Your task to perform on an android device: toggle priority inbox in the gmail app Image 0: 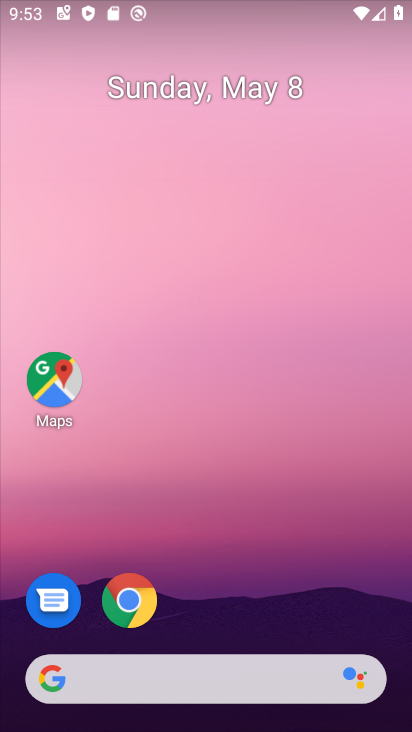
Step 0: drag from (214, 680) to (201, 138)
Your task to perform on an android device: toggle priority inbox in the gmail app Image 1: 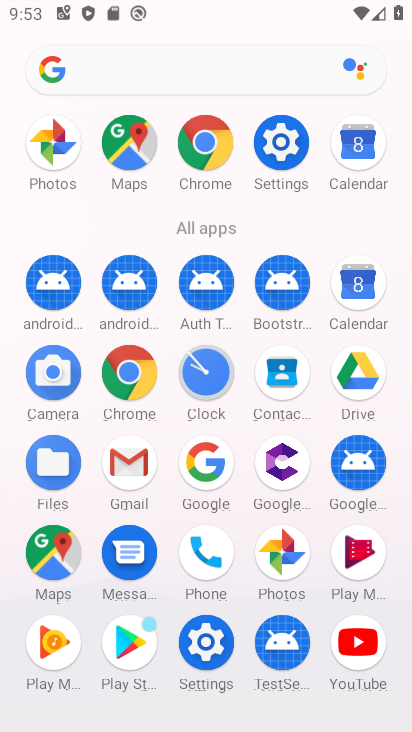
Step 1: click (147, 459)
Your task to perform on an android device: toggle priority inbox in the gmail app Image 2: 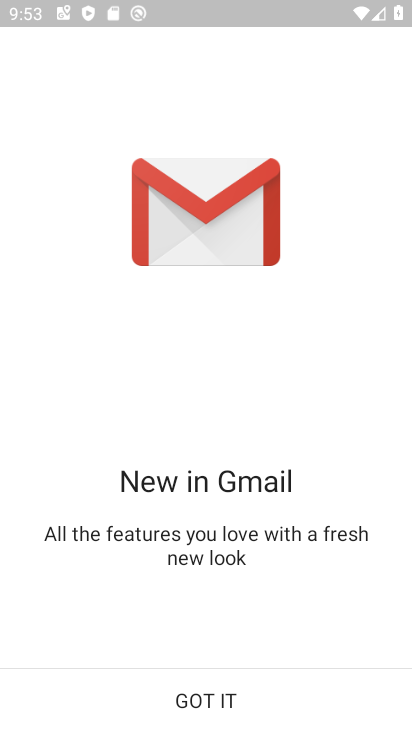
Step 2: click (228, 690)
Your task to perform on an android device: toggle priority inbox in the gmail app Image 3: 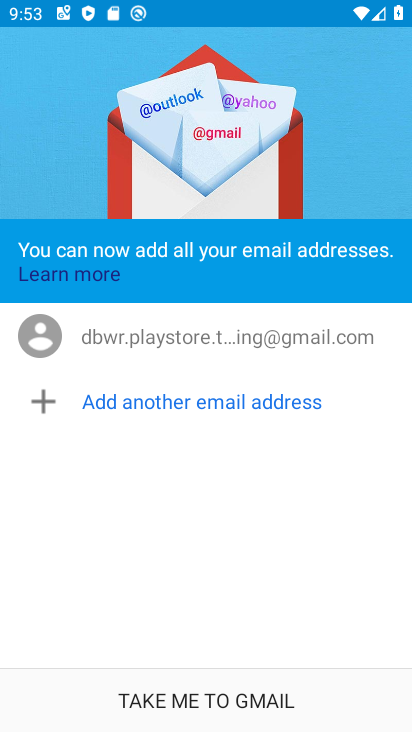
Step 3: click (228, 690)
Your task to perform on an android device: toggle priority inbox in the gmail app Image 4: 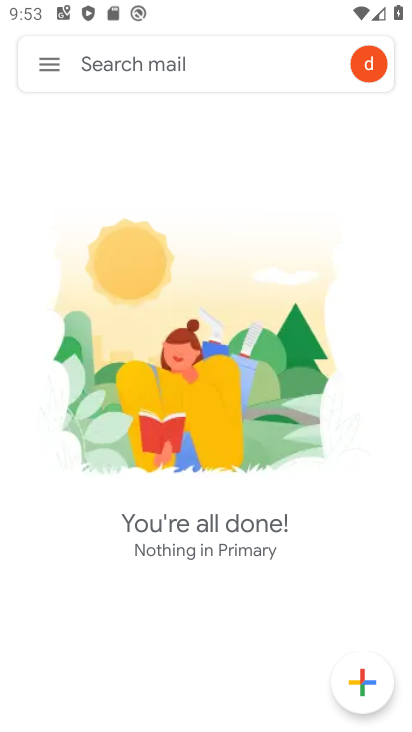
Step 4: click (48, 64)
Your task to perform on an android device: toggle priority inbox in the gmail app Image 5: 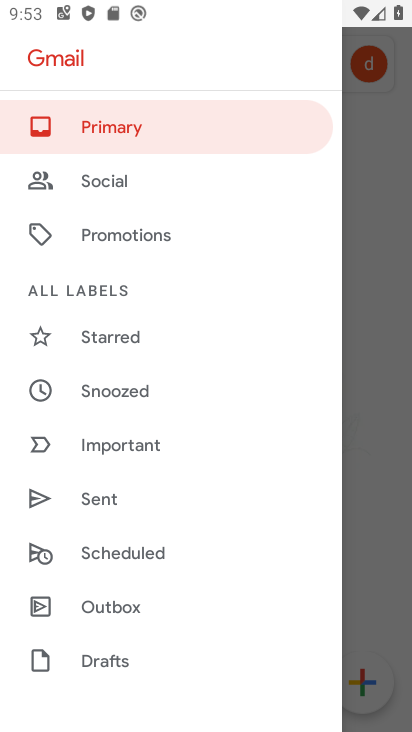
Step 5: drag from (128, 628) to (106, 159)
Your task to perform on an android device: toggle priority inbox in the gmail app Image 6: 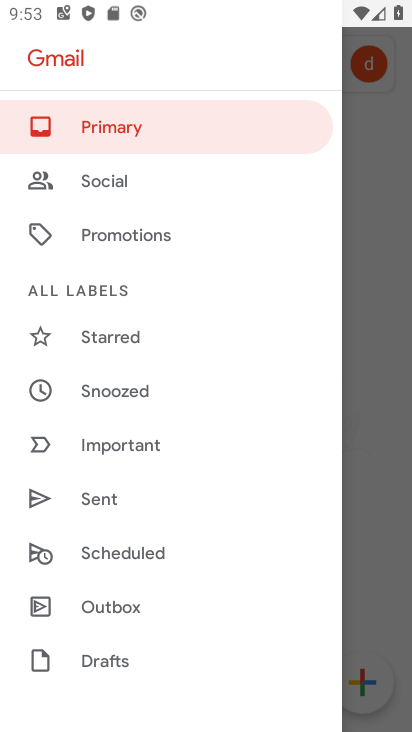
Step 6: drag from (126, 598) to (149, 226)
Your task to perform on an android device: toggle priority inbox in the gmail app Image 7: 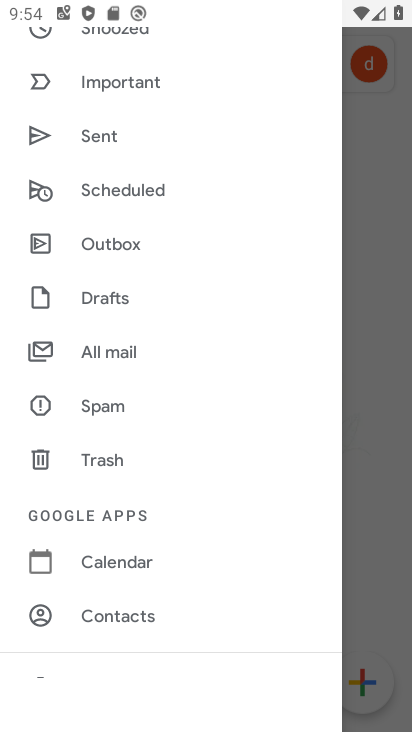
Step 7: drag from (113, 619) to (79, 191)
Your task to perform on an android device: toggle priority inbox in the gmail app Image 8: 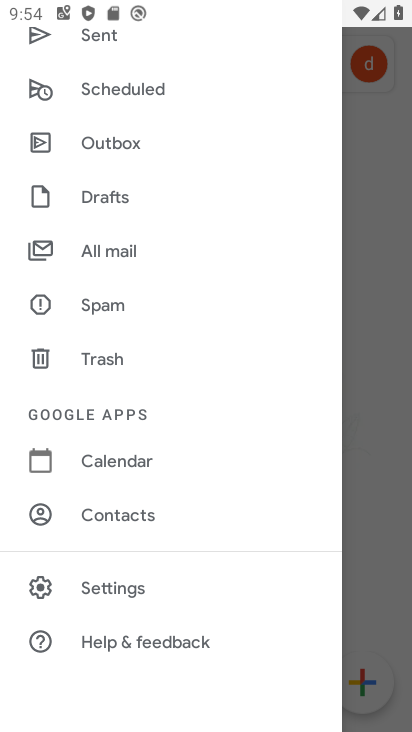
Step 8: click (102, 595)
Your task to perform on an android device: toggle priority inbox in the gmail app Image 9: 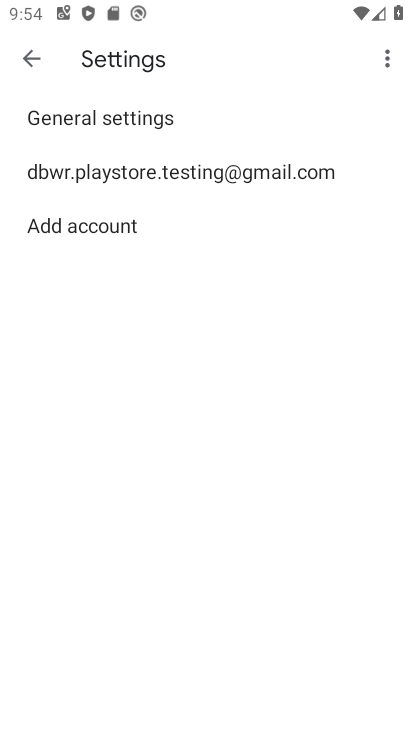
Step 9: click (162, 179)
Your task to perform on an android device: toggle priority inbox in the gmail app Image 10: 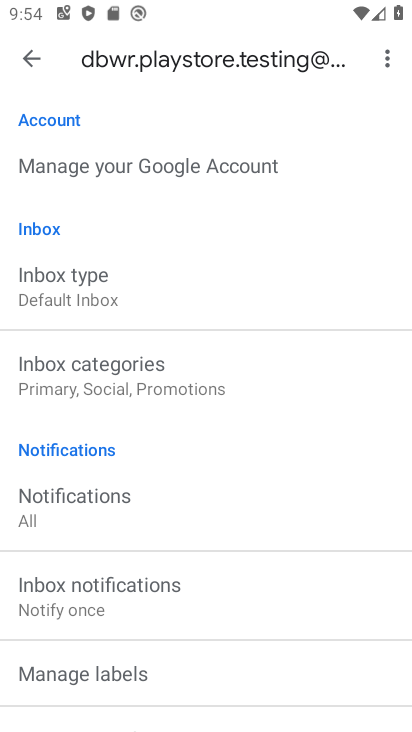
Step 10: click (132, 287)
Your task to perform on an android device: toggle priority inbox in the gmail app Image 11: 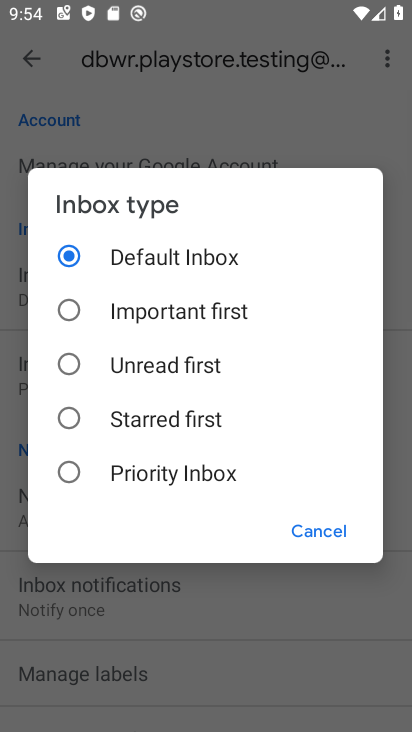
Step 11: click (137, 475)
Your task to perform on an android device: toggle priority inbox in the gmail app Image 12: 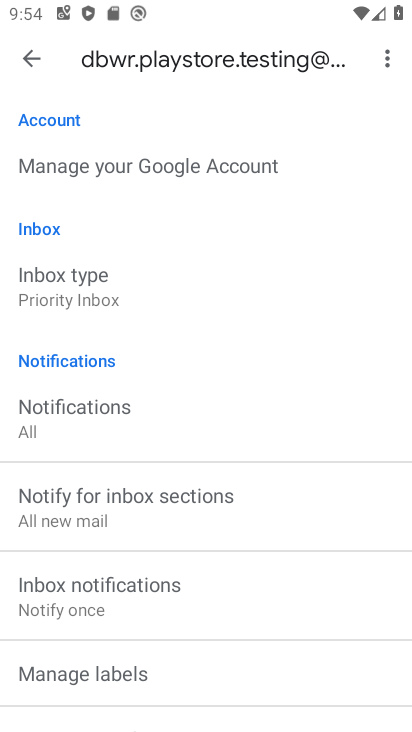
Step 12: task complete